Your task to perform on an android device: open app "NewsBreak: Local News & Alerts" (install if not already installed) Image 0: 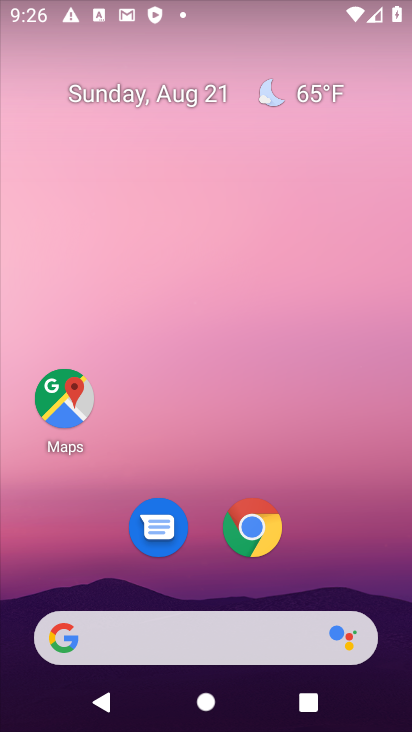
Step 0: drag from (182, 582) to (181, 3)
Your task to perform on an android device: open app "NewsBreak: Local News & Alerts" (install if not already installed) Image 1: 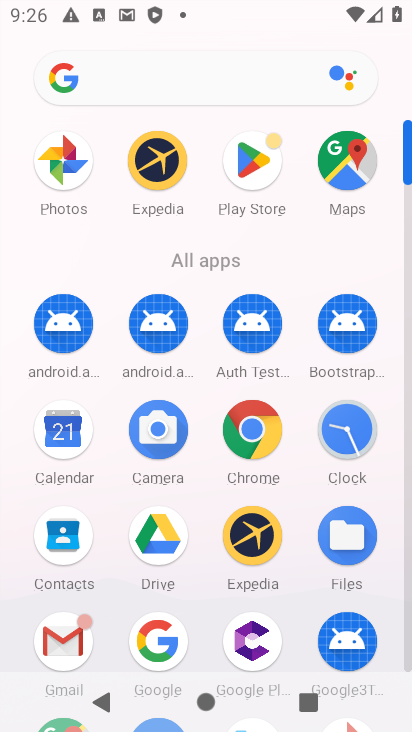
Step 1: click (247, 176)
Your task to perform on an android device: open app "NewsBreak: Local News & Alerts" (install if not already installed) Image 2: 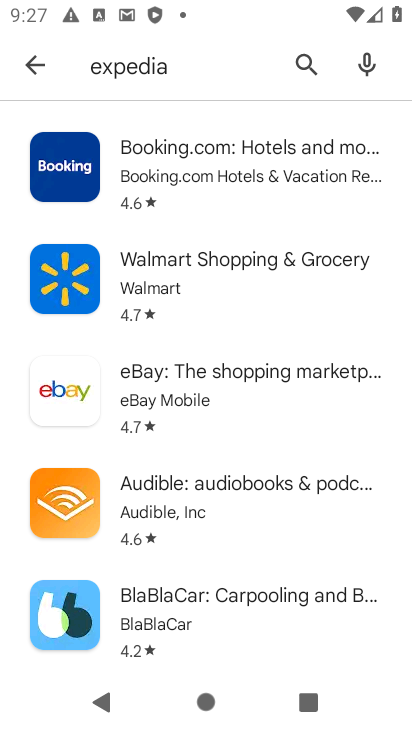
Step 2: click (170, 77)
Your task to perform on an android device: open app "NewsBreak: Local News & Alerts" (install if not already installed) Image 3: 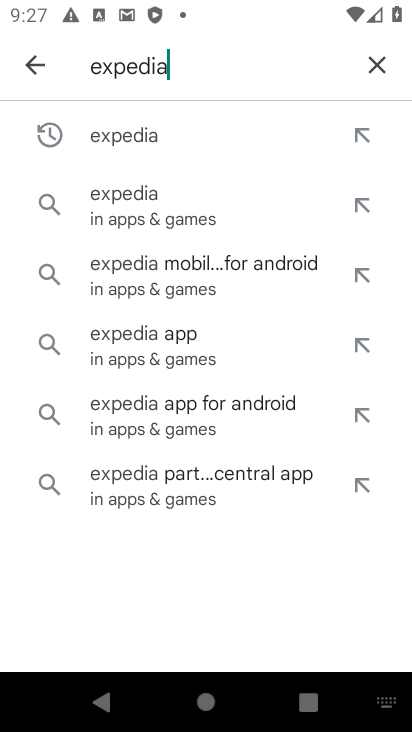
Step 3: click (371, 62)
Your task to perform on an android device: open app "NewsBreak: Local News & Alerts" (install if not already installed) Image 4: 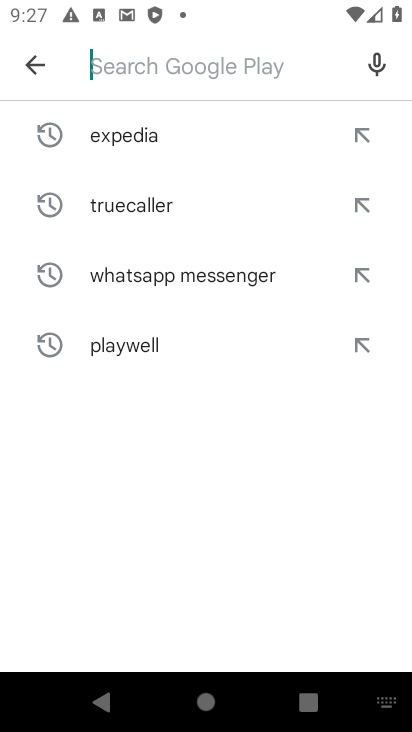
Step 4: type "newsbreak"
Your task to perform on an android device: open app "NewsBreak: Local News & Alerts" (install if not already installed) Image 5: 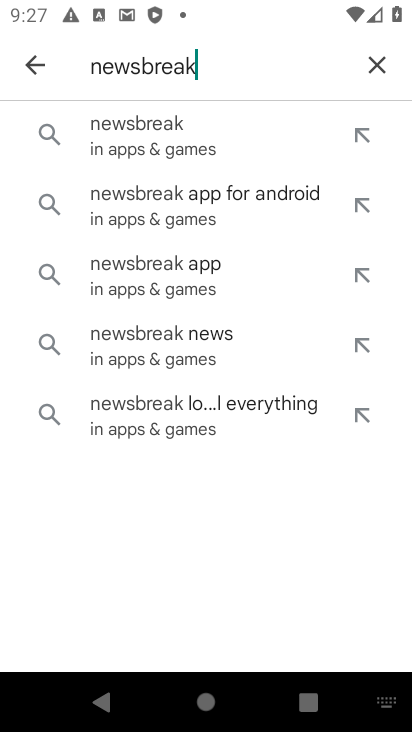
Step 5: click (166, 119)
Your task to perform on an android device: open app "NewsBreak: Local News & Alerts" (install if not already installed) Image 6: 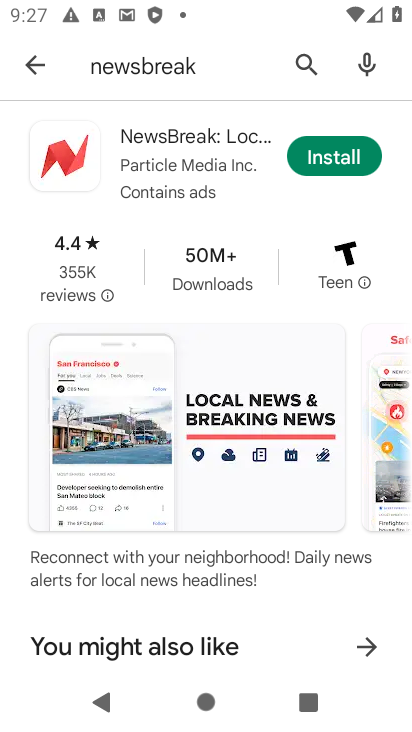
Step 6: click (337, 166)
Your task to perform on an android device: open app "NewsBreak: Local News & Alerts" (install if not already installed) Image 7: 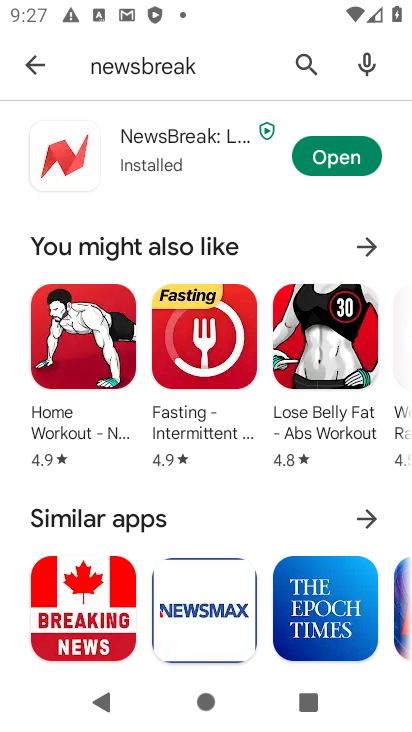
Step 7: click (333, 159)
Your task to perform on an android device: open app "NewsBreak: Local News & Alerts" (install if not already installed) Image 8: 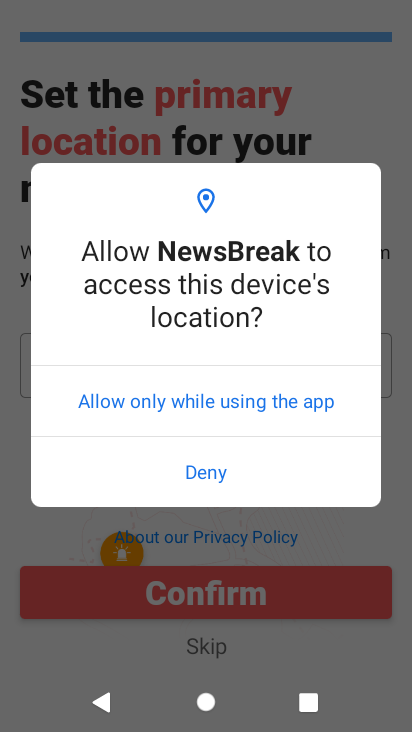
Step 8: click (216, 400)
Your task to perform on an android device: open app "NewsBreak: Local News & Alerts" (install if not already installed) Image 9: 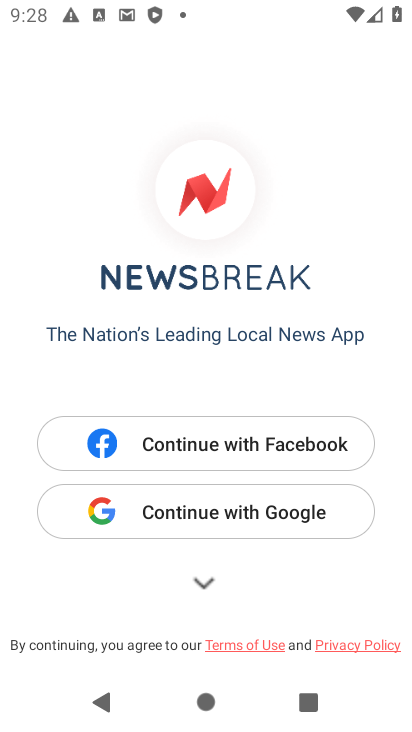
Step 9: click (267, 504)
Your task to perform on an android device: open app "NewsBreak: Local News & Alerts" (install if not already installed) Image 10: 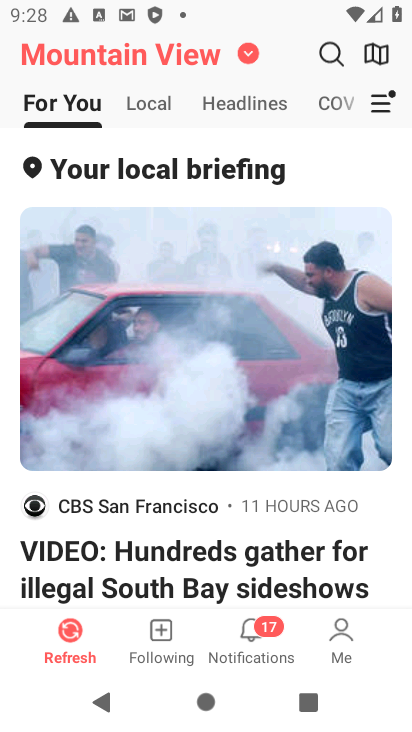
Step 10: task complete